Your task to perform on an android device: Open ESPN.com Image 0: 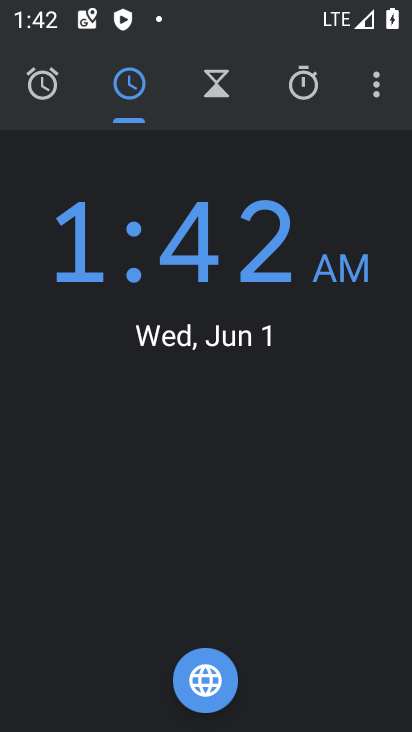
Step 0: press home button
Your task to perform on an android device: Open ESPN.com Image 1: 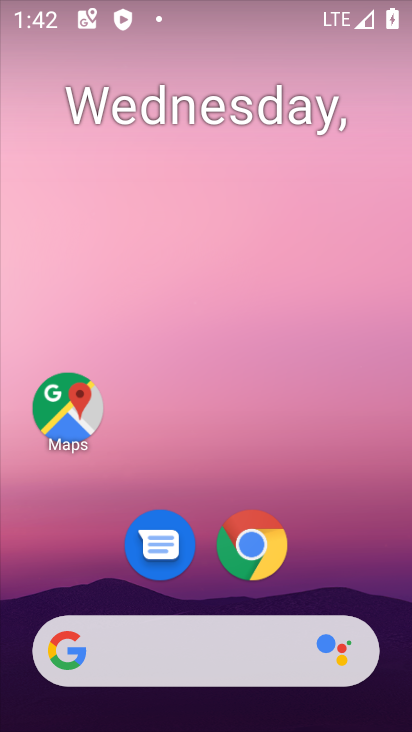
Step 1: click (256, 547)
Your task to perform on an android device: Open ESPN.com Image 2: 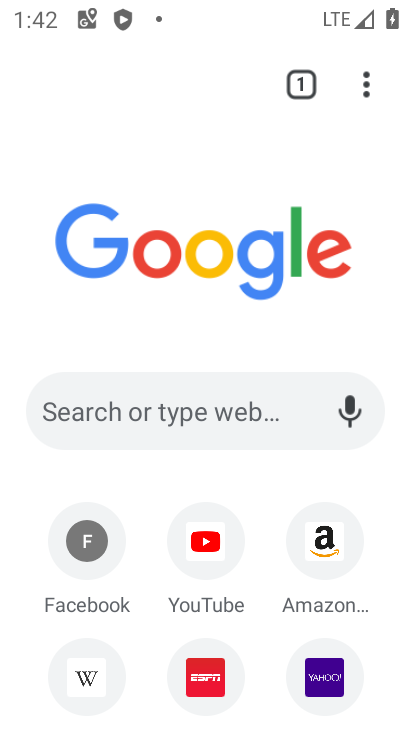
Step 2: drag from (257, 543) to (302, 254)
Your task to perform on an android device: Open ESPN.com Image 3: 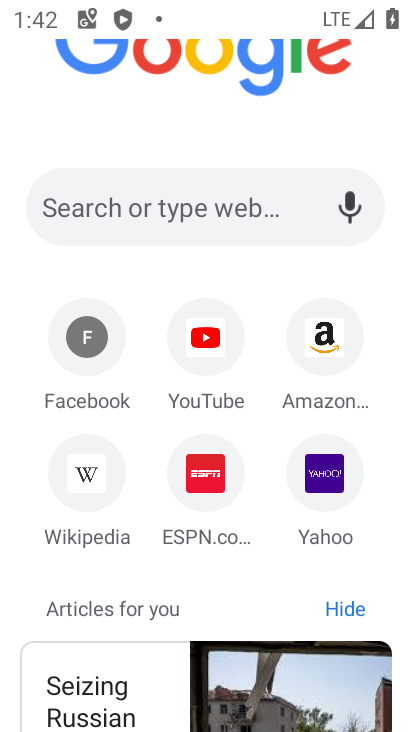
Step 3: click (217, 499)
Your task to perform on an android device: Open ESPN.com Image 4: 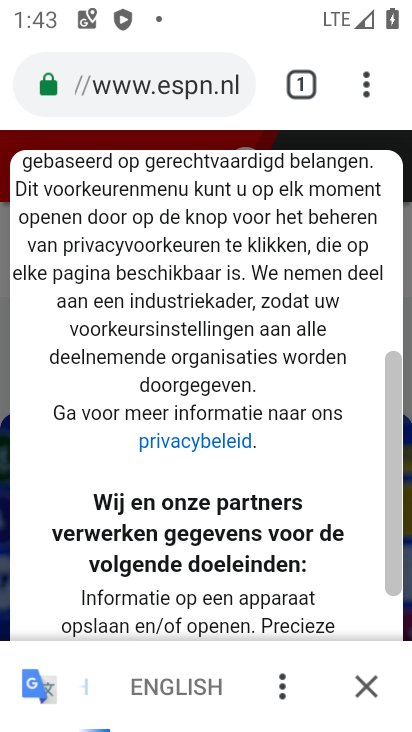
Step 4: task complete